Your task to perform on an android device: Open Google Chrome and click the shortcut for Amazon.com Image 0: 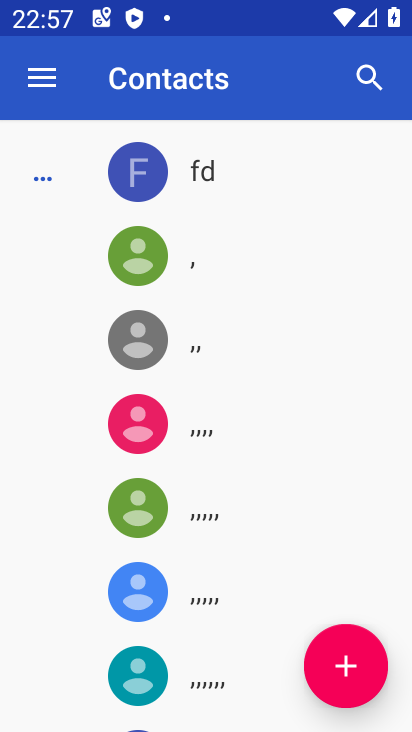
Step 0: press home button
Your task to perform on an android device: Open Google Chrome and click the shortcut for Amazon.com Image 1: 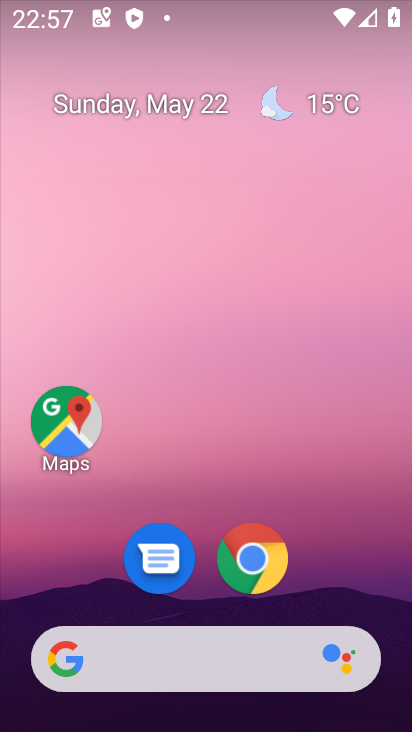
Step 1: click (253, 562)
Your task to perform on an android device: Open Google Chrome and click the shortcut for Amazon.com Image 2: 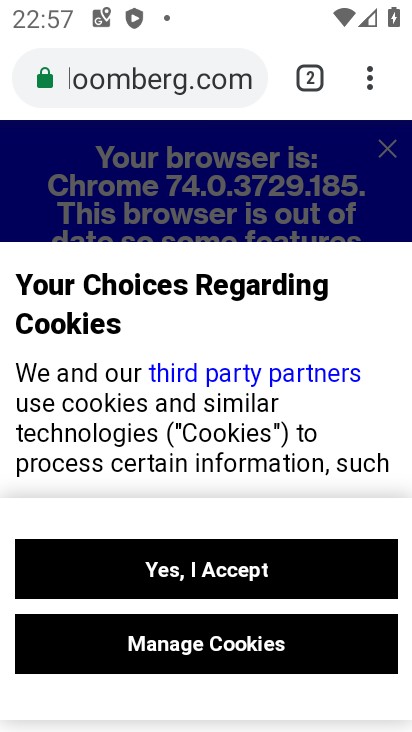
Step 2: click (190, 82)
Your task to perform on an android device: Open Google Chrome and click the shortcut for Amazon.com Image 3: 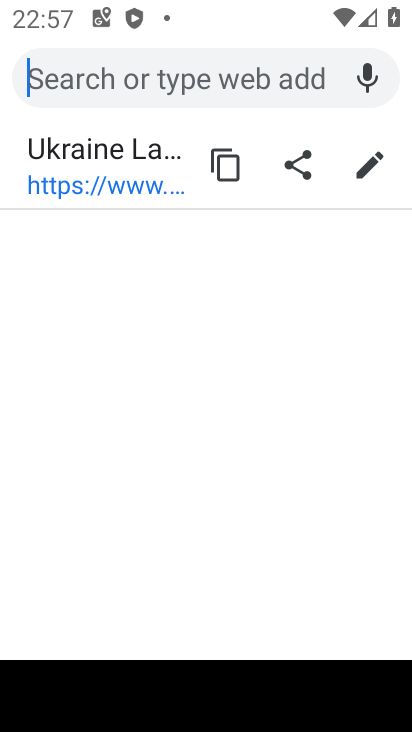
Step 3: press back button
Your task to perform on an android device: Open Google Chrome and click the shortcut for Amazon.com Image 4: 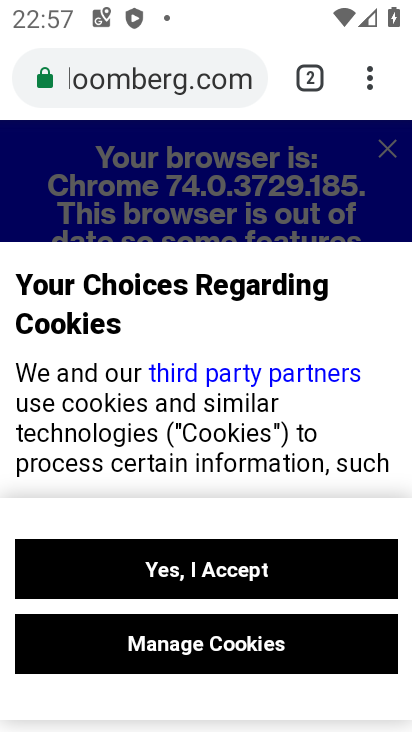
Step 4: click (372, 80)
Your task to perform on an android device: Open Google Chrome and click the shortcut for Amazon.com Image 5: 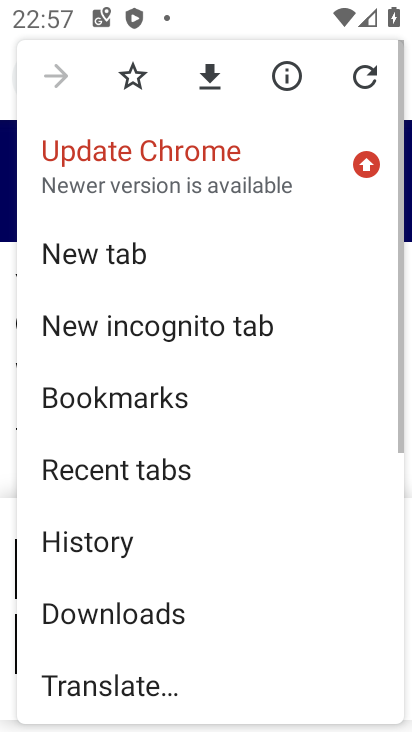
Step 5: click (71, 258)
Your task to perform on an android device: Open Google Chrome and click the shortcut for Amazon.com Image 6: 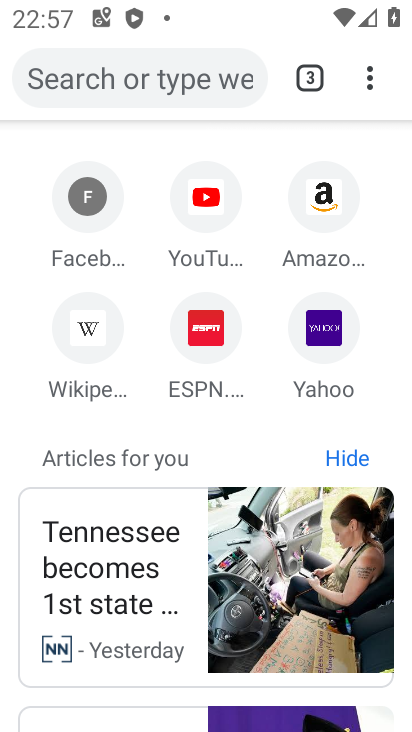
Step 6: click (318, 213)
Your task to perform on an android device: Open Google Chrome and click the shortcut for Amazon.com Image 7: 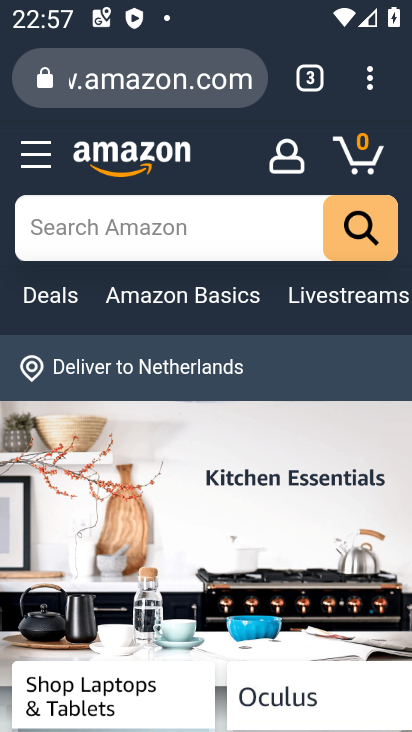
Step 7: task complete